Your task to perform on an android device: Search for Italian restaurants on Maps Image 0: 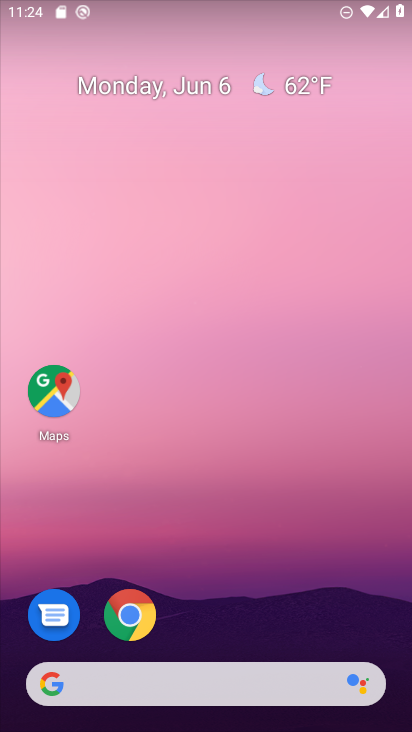
Step 0: click (47, 400)
Your task to perform on an android device: Search for Italian restaurants on Maps Image 1: 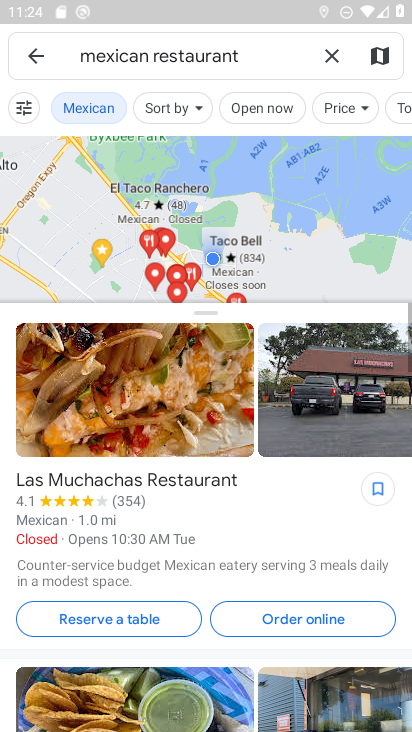
Step 1: click (324, 51)
Your task to perform on an android device: Search for Italian restaurants on Maps Image 2: 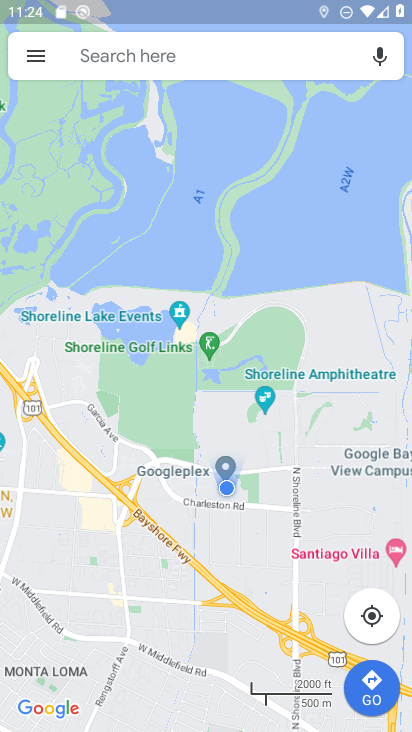
Step 2: click (123, 61)
Your task to perform on an android device: Search for Italian restaurants on Maps Image 3: 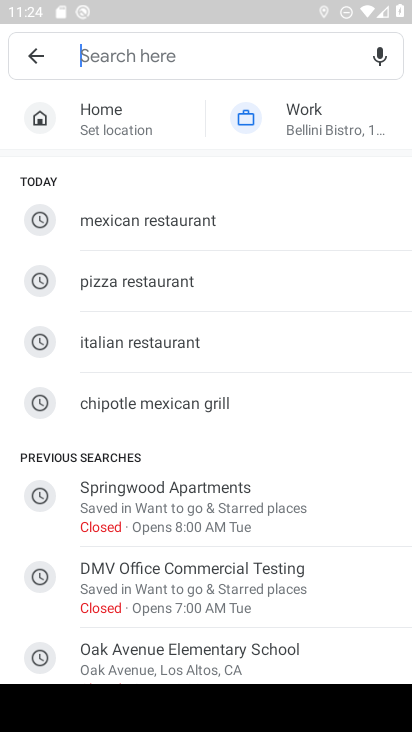
Step 3: click (184, 342)
Your task to perform on an android device: Search for Italian restaurants on Maps Image 4: 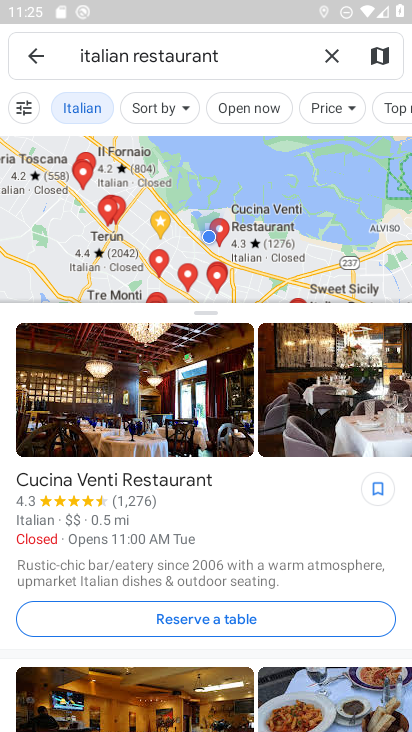
Step 4: task complete